Your task to perform on an android device: Search for sushi restaurants on Maps Image 0: 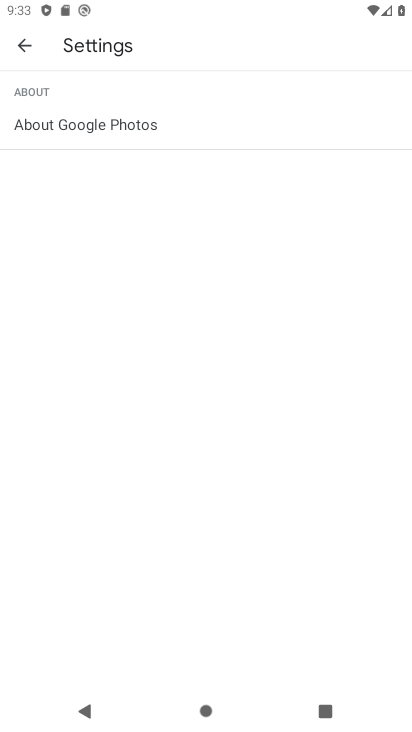
Step 0: press home button
Your task to perform on an android device: Search for sushi restaurants on Maps Image 1: 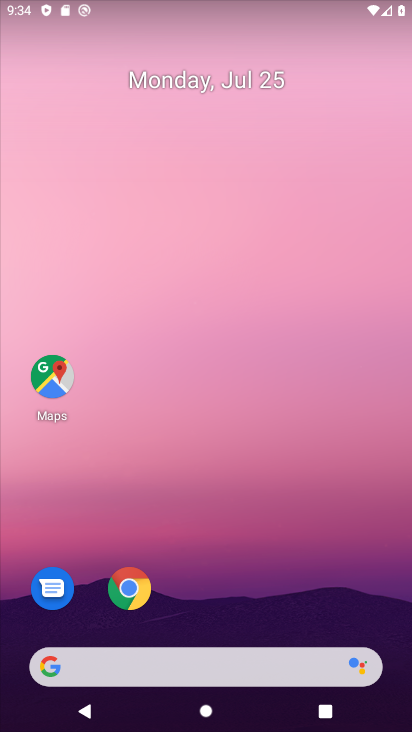
Step 1: drag from (223, 627) to (321, 98)
Your task to perform on an android device: Search for sushi restaurants on Maps Image 2: 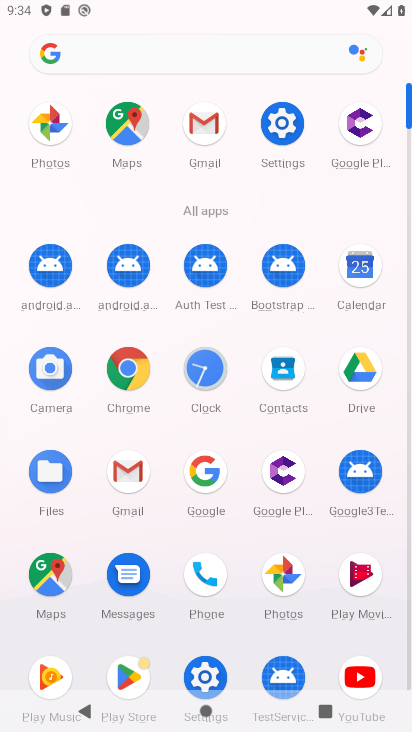
Step 2: click (49, 576)
Your task to perform on an android device: Search for sushi restaurants on Maps Image 3: 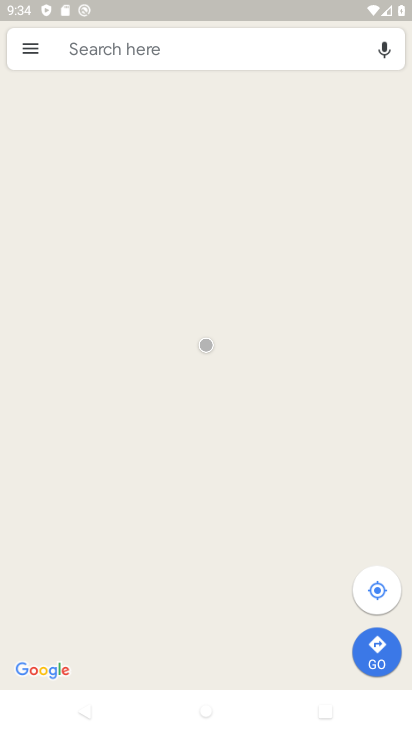
Step 3: click (183, 51)
Your task to perform on an android device: Search for sushi restaurants on Maps Image 4: 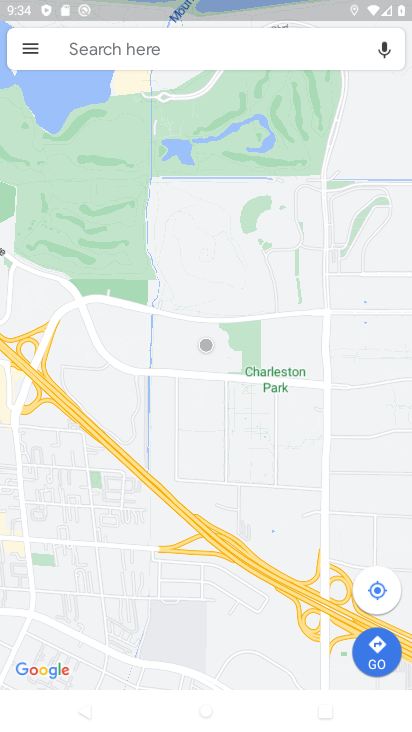
Step 4: click (168, 54)
Your task to perform on an android device: Search for sushi restaurants on Maps Image 5: 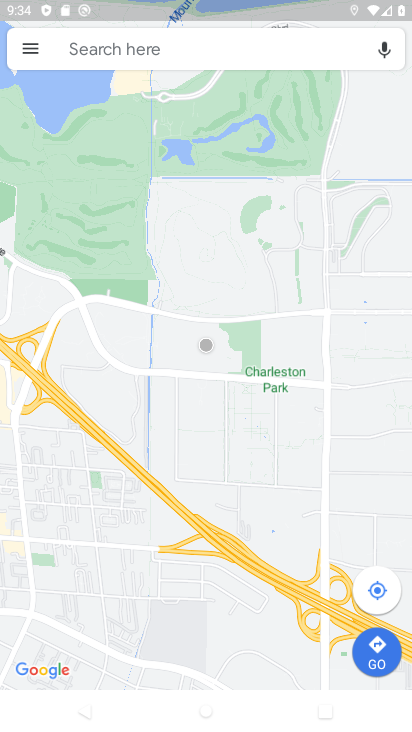
Step 5: click (168, 54)
Your task to perform on an android device: Search for sushi restaurants on Maps Image 6: 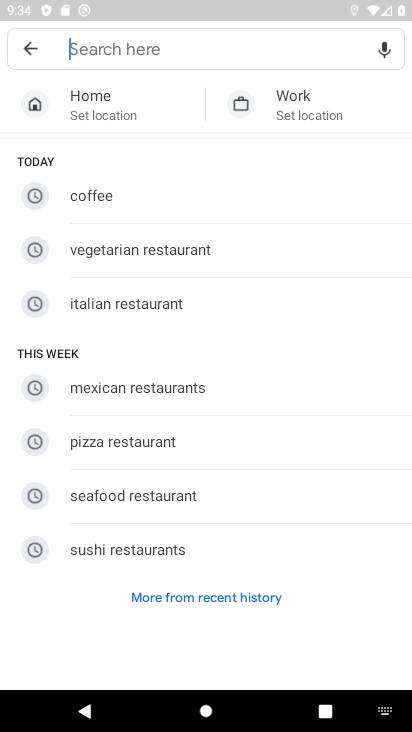
Step 6: type "sushi res"
Your task to perform on an android device: Search for sushi restaurants on Maps Image 7: 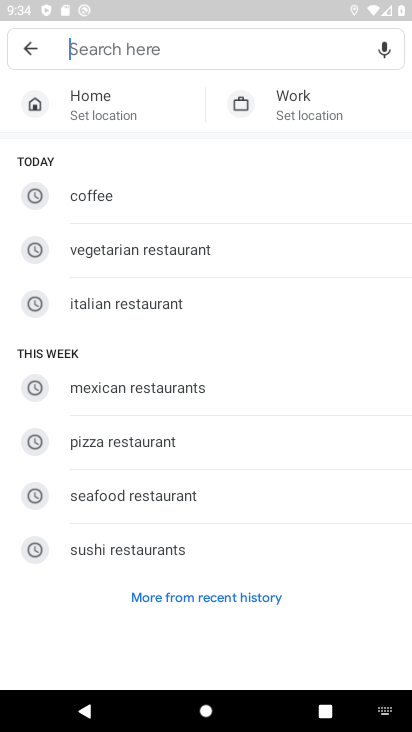
Step 7: click (172, 548)
Your task to perform on an android device: Search for sushi restaurants on Maps Image 8: 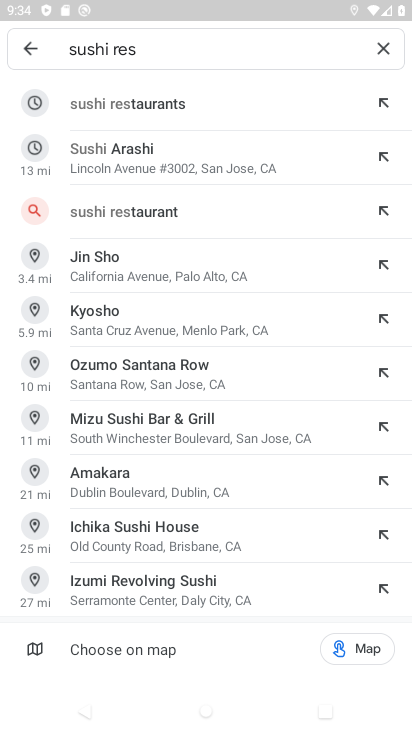
Step 8: click (150, 111)
Your task to perform on an android device: Search for sushi restaurants on Maps Image 9: 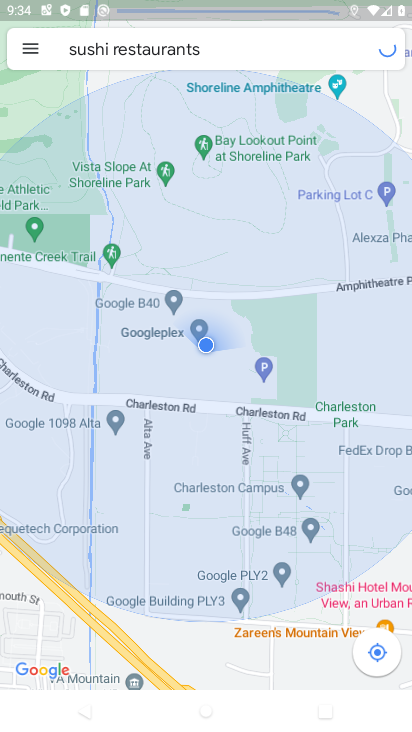
Step 9: task complete